Your task to perform on an android device: choose inbox layout in the gmail app Image 0: 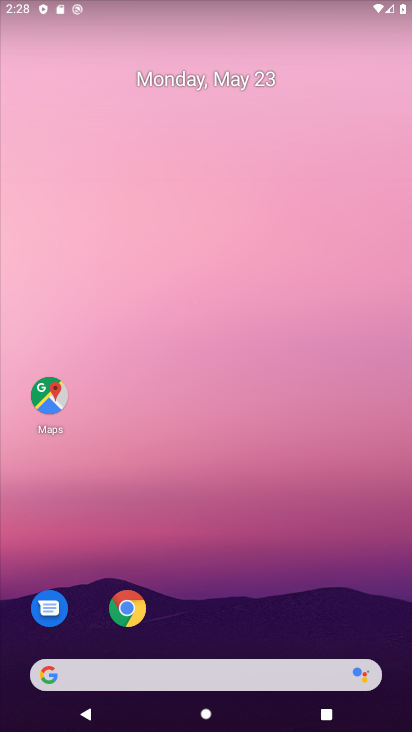
Step 0: drag from (323, 606) to (258, 241)
Your task to perform on an android device: choose inbox layout in the gmail app Image 1: 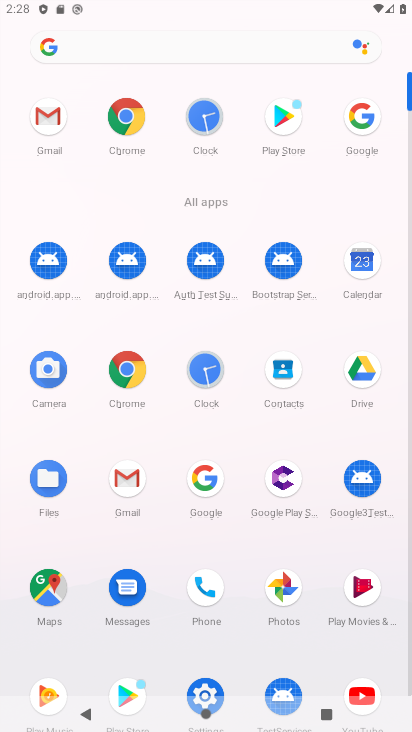
Step 1: click (114, 479)
Your task to perform on an android device: choose inbox layout in the gmail app Image 2: 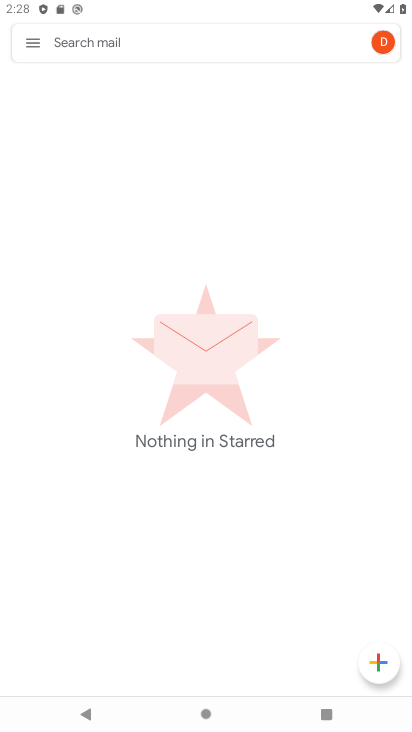
Step 2: click (28, 36)
Your task to perform on an android device: choose inbox layout in the gmail app Image 3: 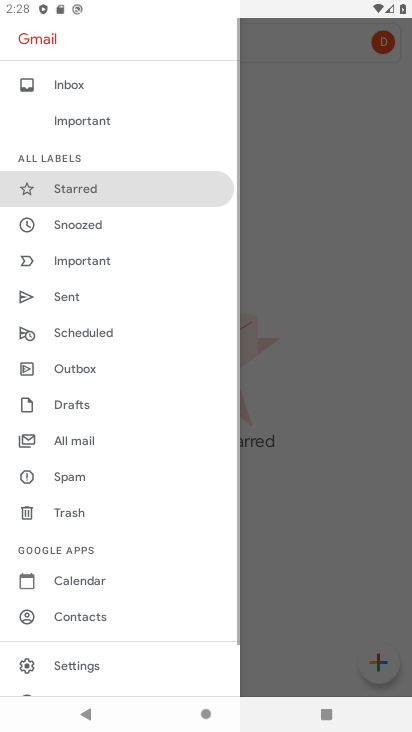
Step 3: drag from (116, 633) to (169, 365)
Your task to perform on an android device: choose inbox layout in the gmail app Image 4: 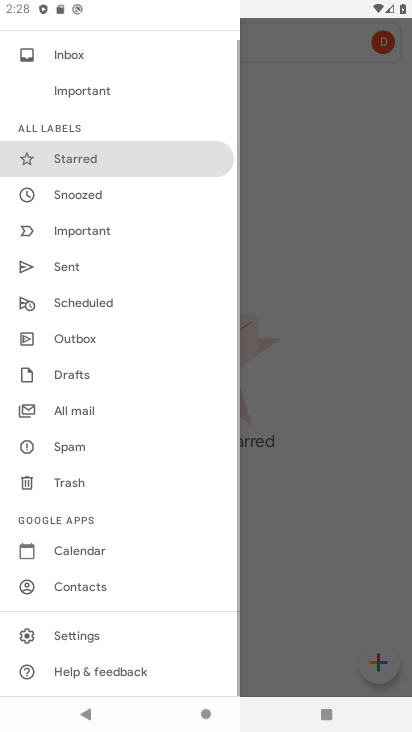
Step 4: click (102, 630)
Your task to perform on an android device: choose inbox layout in the gmail app Image 5: 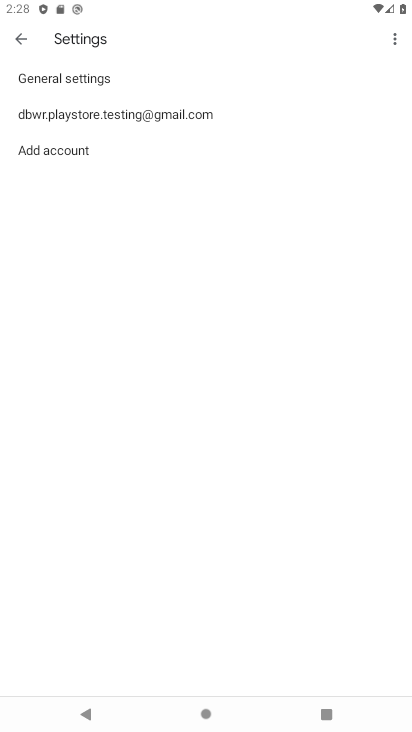
Step 5: click (242, 121)
Your task to perform on an android device: choose inbox layout in the gmail app Image 6: 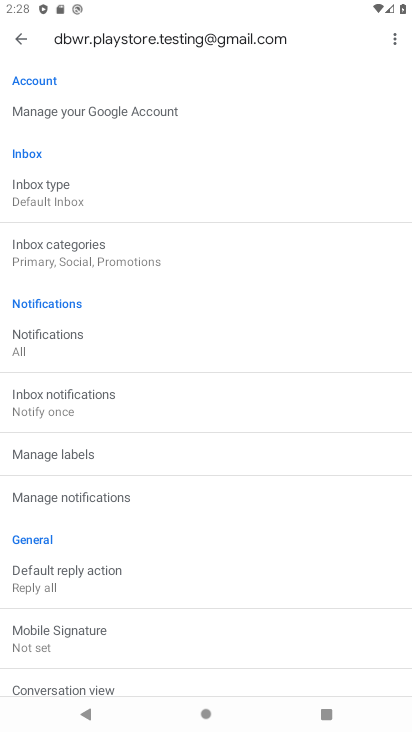
Step 6: click (90, 192)
Your task to perform on an android device: choose inbox layout in the gmail app Image 7: 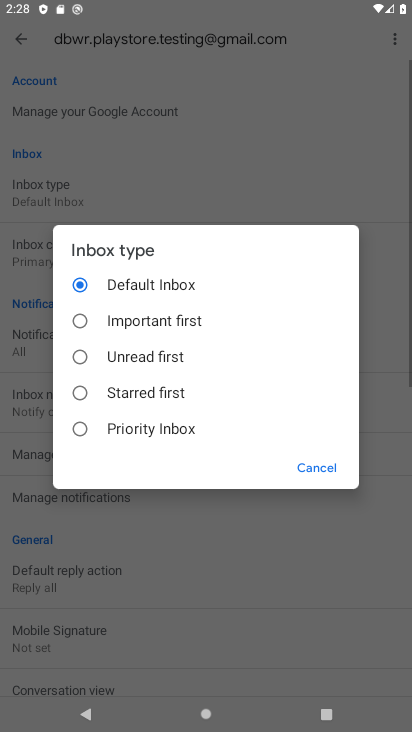
Step 7: click (118, 354)
Your task to perform on an android device: choose inbox layout in the gmail app Image 8: 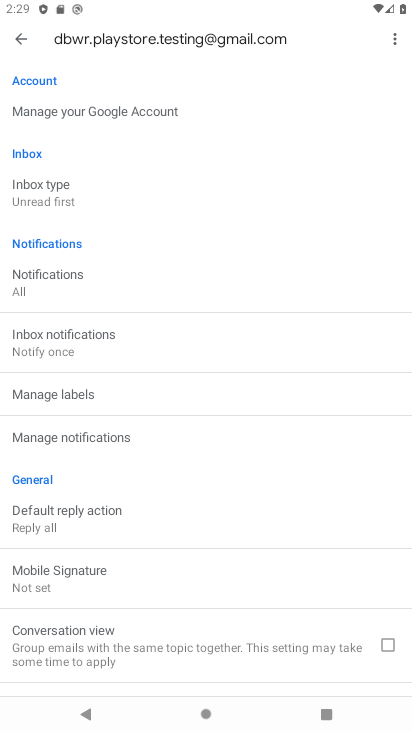
Step 8: task complete